Your task to perform on an android device: toggle javascript in the chrome app Image 0: 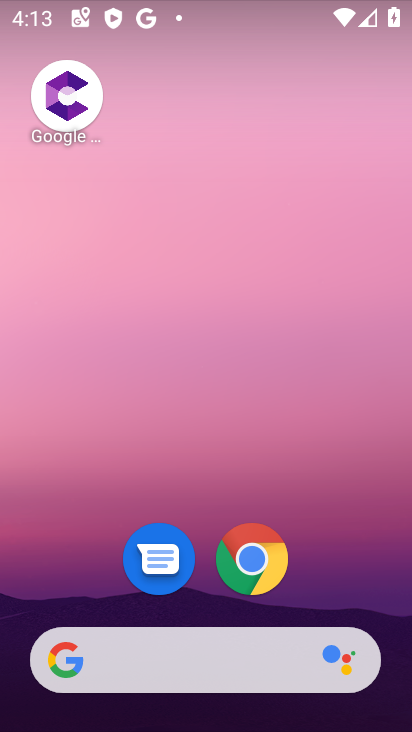
Step 0: click (273, 555)
Your task to perform on an android device: toggle javascript in the chrome app Image 1: 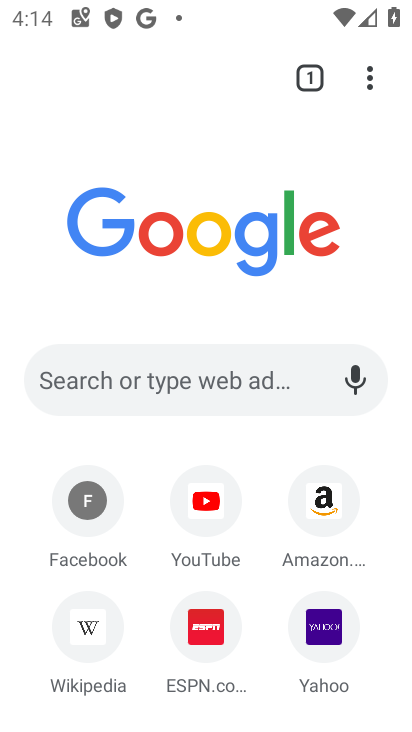
Step 1: drag from (371, 86) to (190, 638)
Your task to perform on an android device: toggle javascript in the chrome app Image 2: 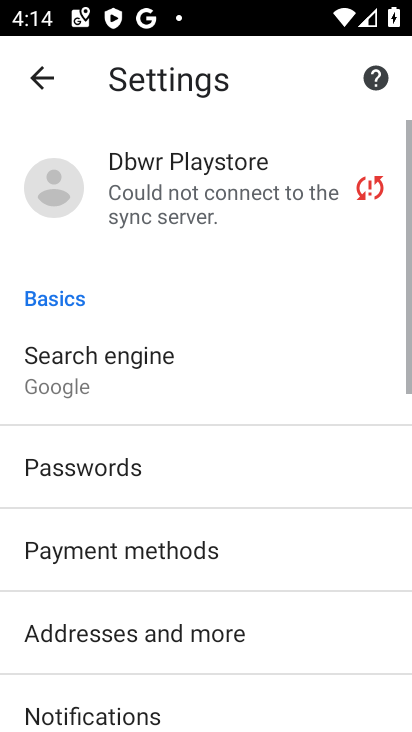
Step 2: drag from (160, 645) to (241, 171)
Your task to perform on an android device: toggle javascript in the chrome app Image 3: 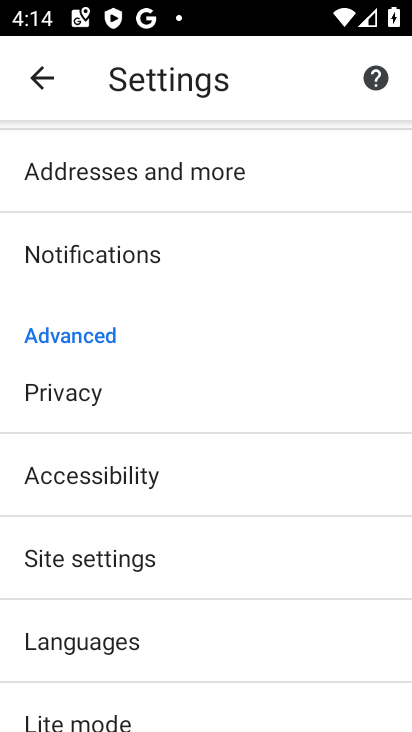
Step 3: click (97, 561)
Your task to perform on an android device: toggle javascript in the chrome app Image 4: 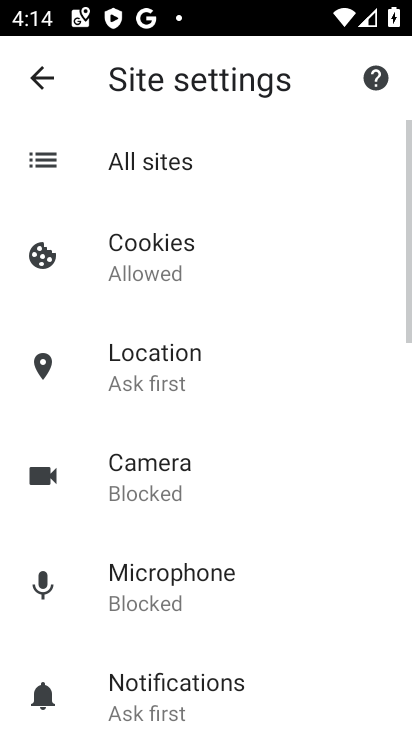
Step 4: drag from (156, 622) to (235, 320)
Your task to perform on an android device: toggle javascript in the chrome app Image 5: 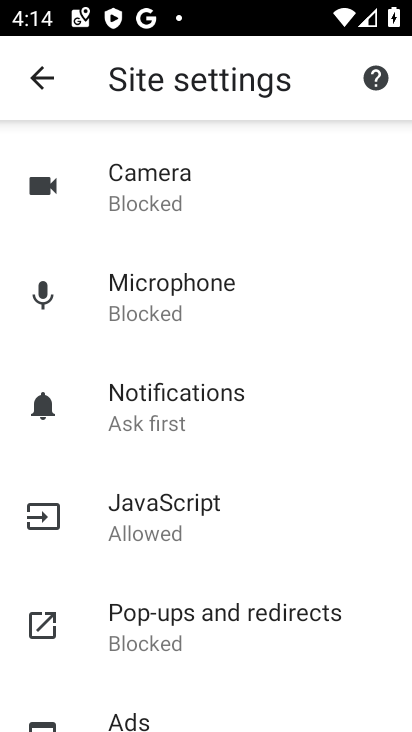
Step 5: click (157, 511)
Your task to perform on an android device: toggle javascript in the chrome app Image 6: 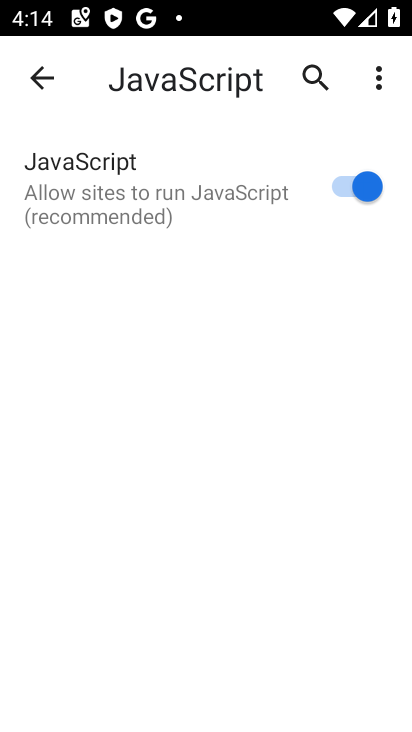
Step 6: click (341, 182)
Your task to perform on an android device: toggle javascript in the chrome app Image 7: 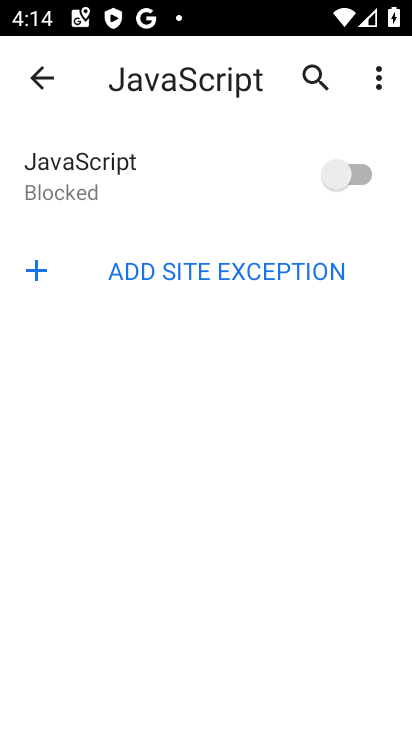
Step 7: task complete